Your task to perform on an android device: Turn on the flashlight Image 0: 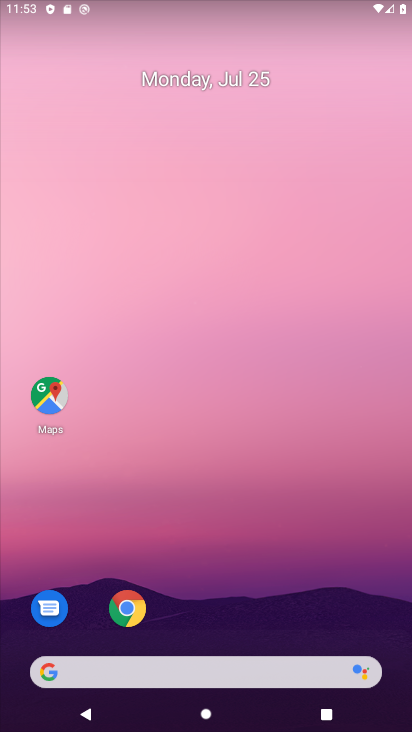
Step 0: drag from (192, 659) to (411, 72)
Your task to perform on an android device: Turn on the flashlight Image 1: 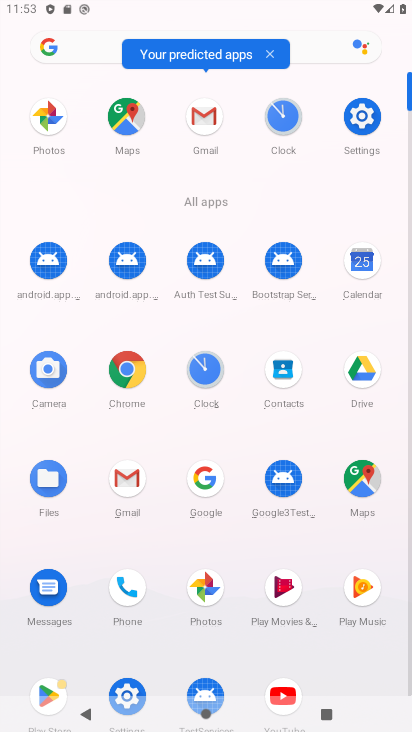
Step 1: click (127, 686)
Your task to perform on an android device: Turn on the flashlight Image 2: 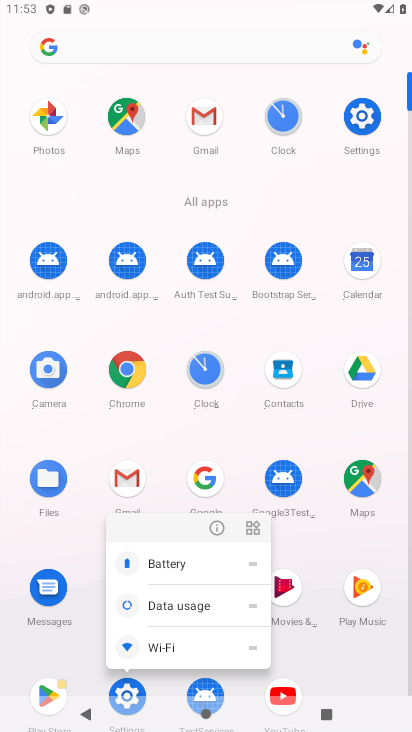
Step 2: click (128, 688)
Your task to perform on an android device: Turn on the flashlight Image 3: 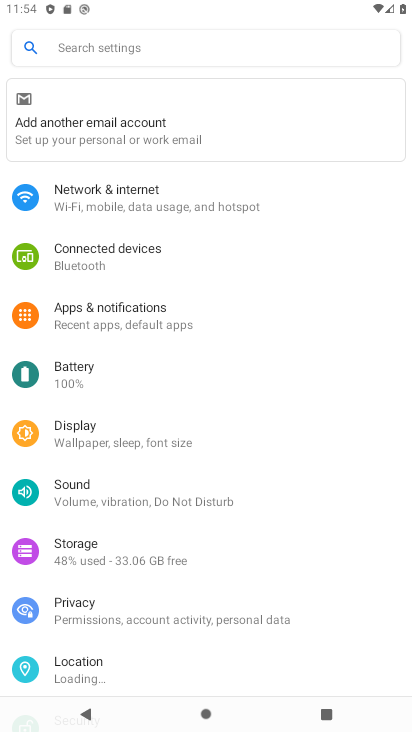
Step 3: click (180, 51)
Your task to perform on an android device: Turn on the flashlight Image 4: 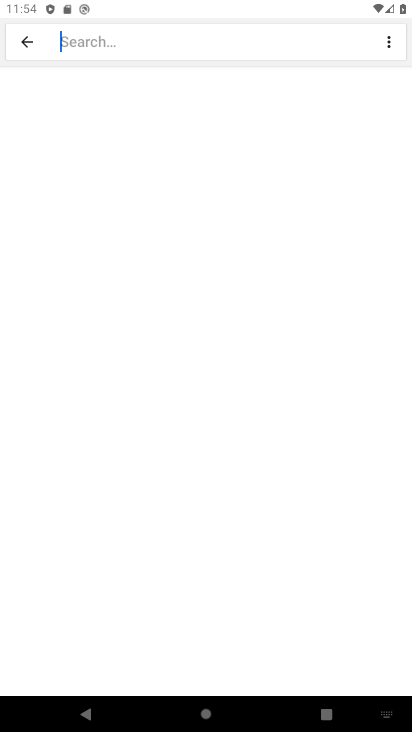
Step 4: type "flashlight"
Your task to perform on an android device: Turn on the flashlight Image 5: 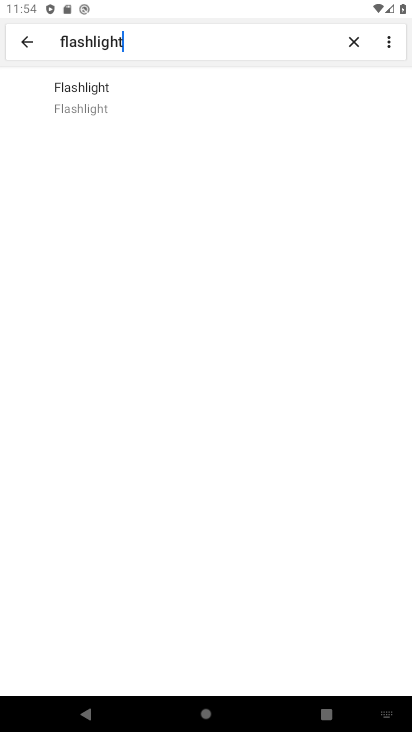
Step 5: click (91, 96)
Your task to perform on an android device: Turn on the flashlight Image 6: 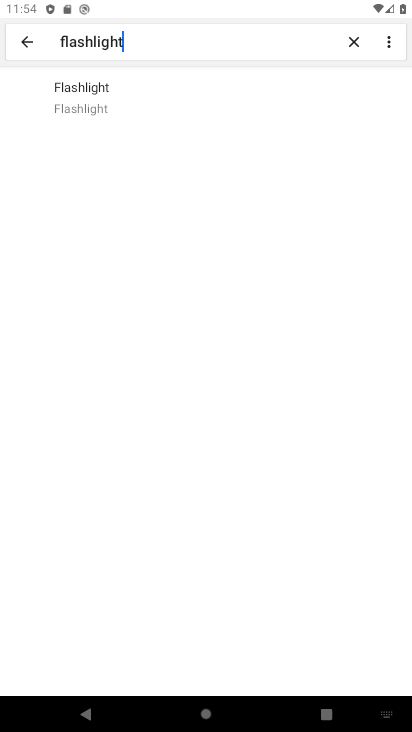
Step 6: click (51, 57)
Your task to perform on an android device: Turn on the flashlight Image 7: 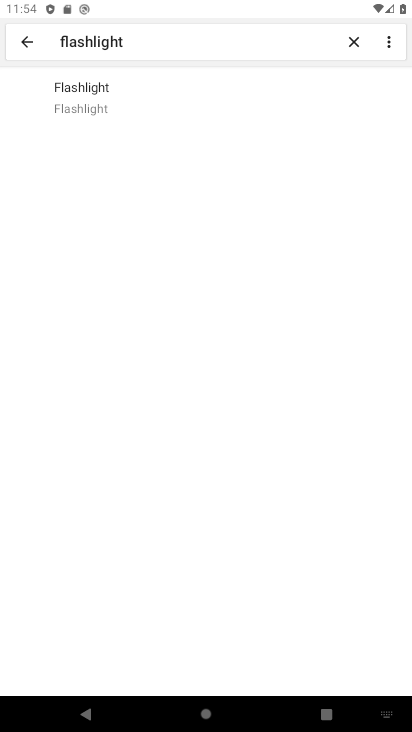
Step 7: task complete